Your task to perform on an android device: Open the stopwatch Image 0: 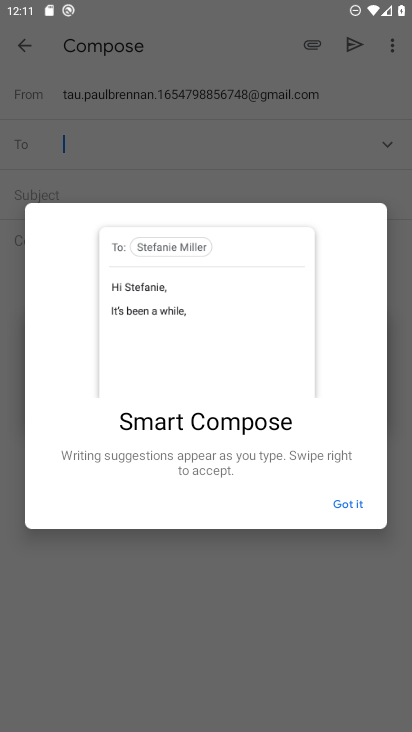
Step 0: click (342, 501)
Your task to perform on an android device: Open the stopwatch Image 1: 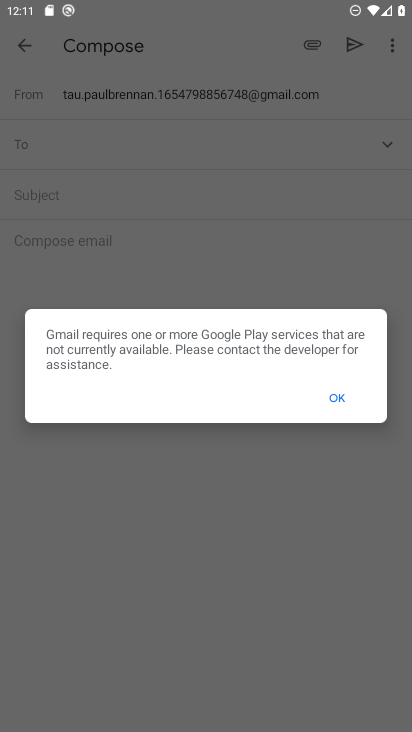
Step 1: press home button
Your task to perform on an android device: Open the stopwatch Image 2: 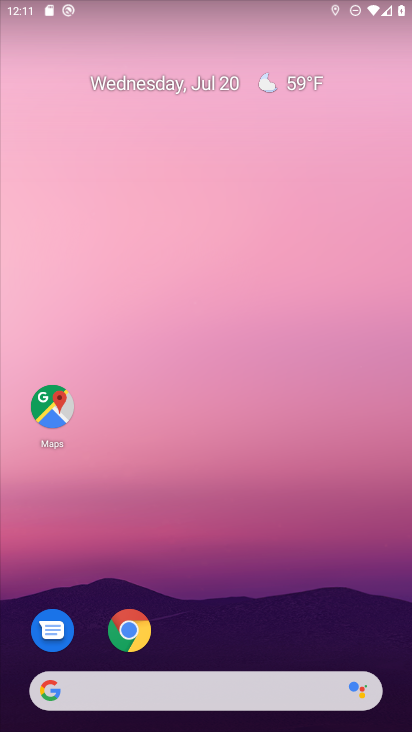
Step 2: drag from (241, 695) to (229, 10)
Your task to perform on an android device: Open the stopwatch Image 3: 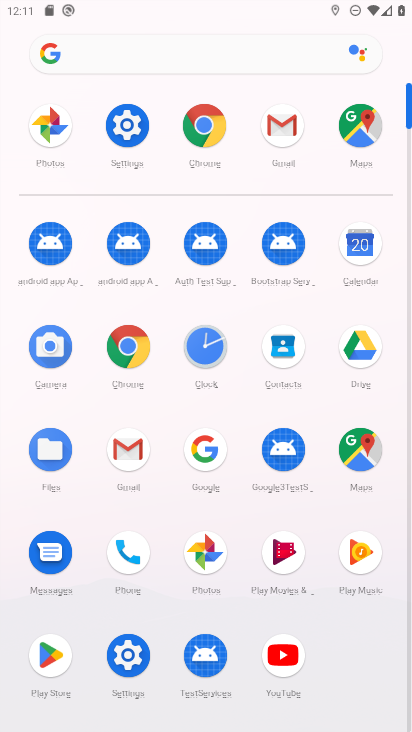
Step 3: click (200, 345)
Your task to perform on an android device: Open the stopwatch Image 4: 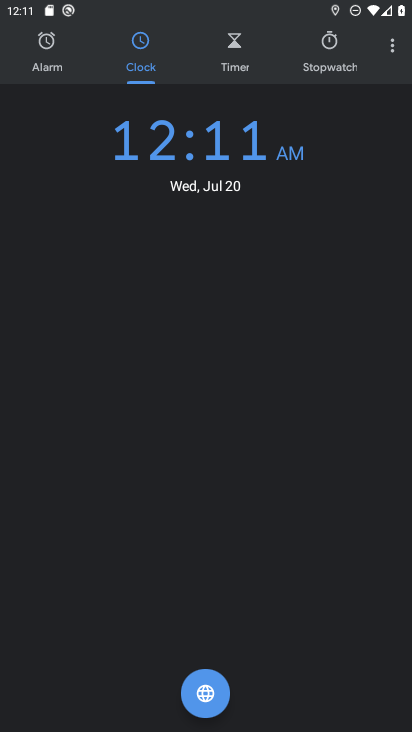
Step 4: click (328, 50)
Your task to perform on an android device: Open the stopwatch Image 5: 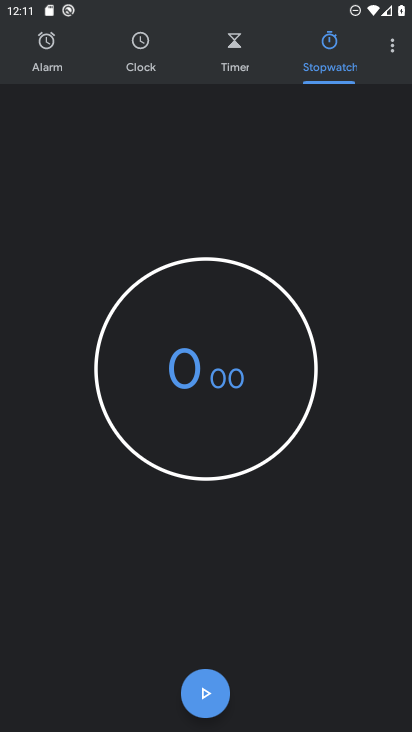
Step 5: click (207, 704)
Your task to perform on an android device: Open the stopwatch Image 6: 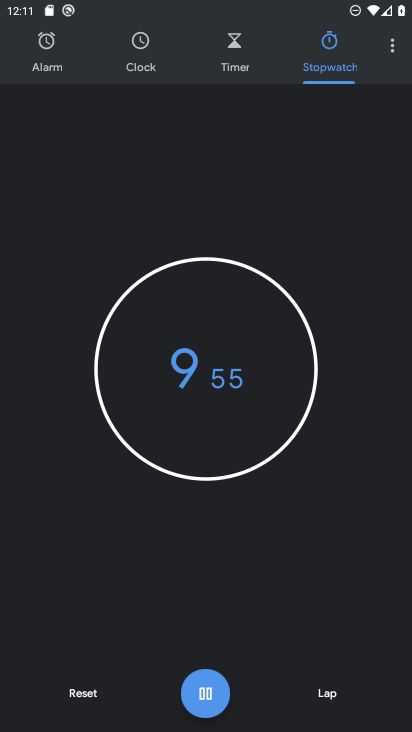
Step 6: task complete